Your task to perform on an android device: turn off airplane mode Image 0: 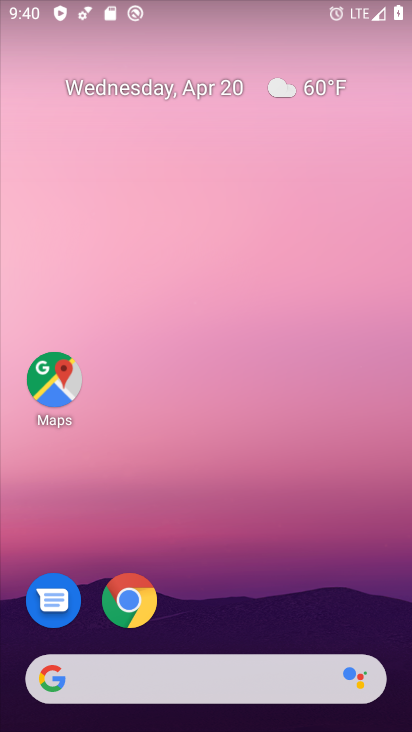
Step 0: drag from (195, 637) to (309, 19)
Your task to perform on an android device: turn off airplane mode Image 1: 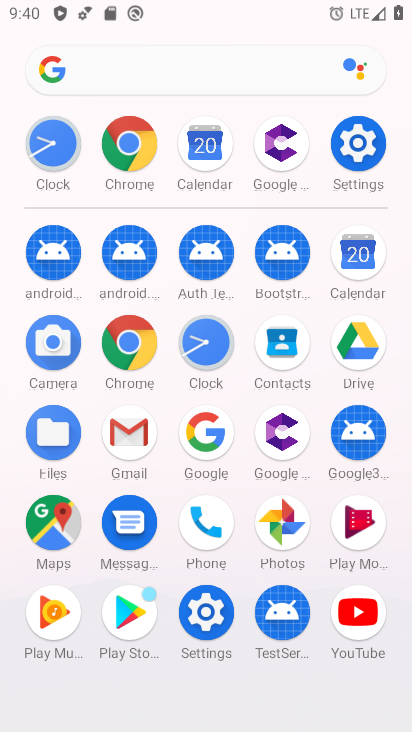
Step 1: click (354, 151)
Your task to perform on an android device: turn off airplane mode Image 2: 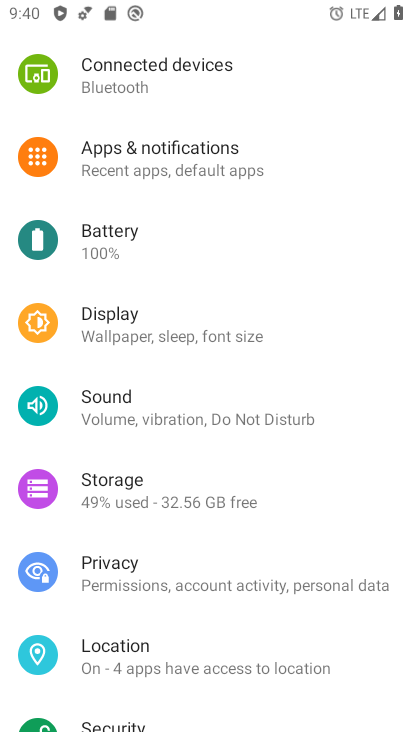
Step 2: drag from (129, 163) to (158, 547)
Your task to perform on an android device: turn off airplane mode Image 3: 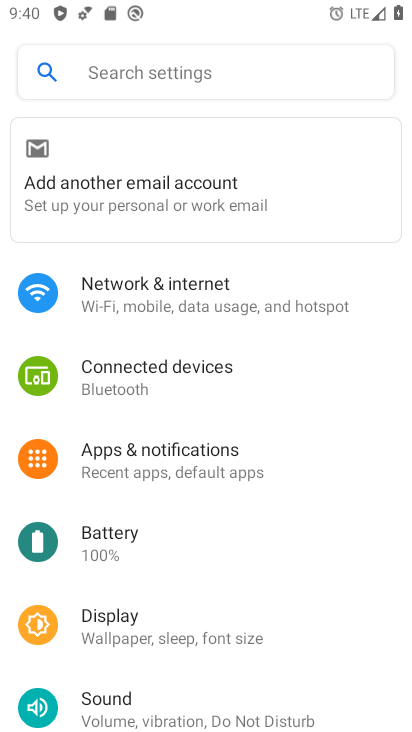
Step 3: click (178, 311)
Your task to perform on an android device: turn off airplane mode Image 4: 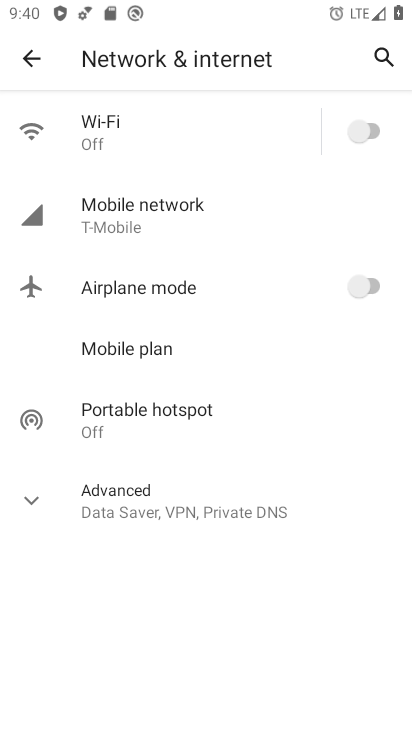
Step 4: task complete